Your task to perform on an android device: change the clock display to analog Image 0: 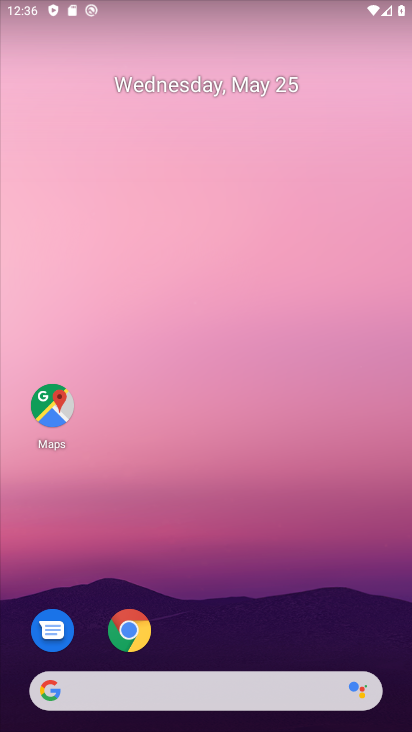
Step 0: drag from (353, 636) to (246, 209)
Your task to perform on an android device: change the clock display to analog Image 1: 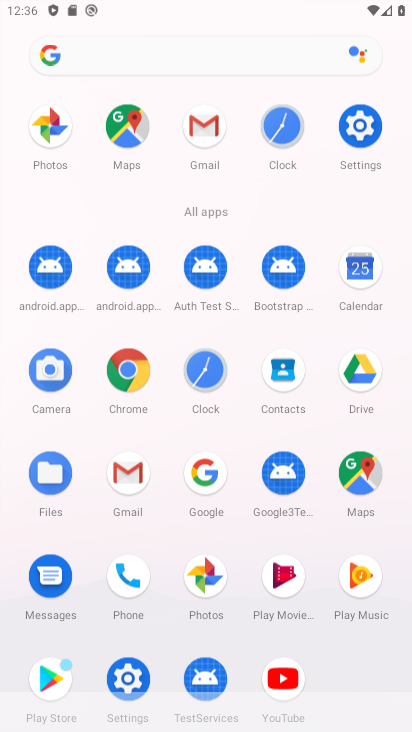
Step 1: drag from (324, 635) to (179, 82)
Your task to perform on an android device: change the clock display to analog Image 2: 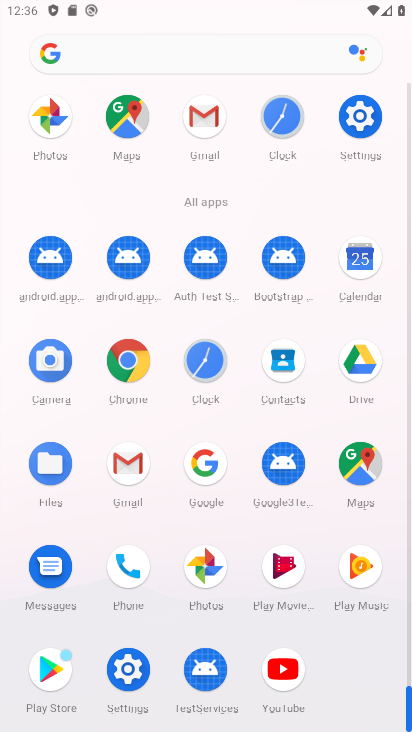
Step 2: click (281, 117)
Your task to perform on an android device: change the clock display to analog Image 3: 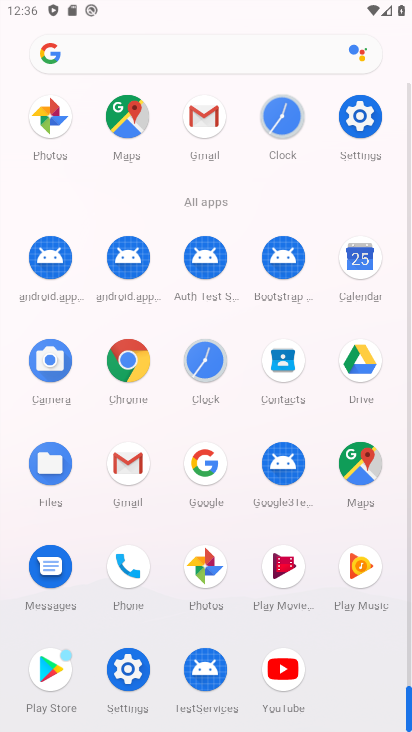
Step 3: click (280, 117)
Your task to perform on an android device: change the clock display to analog Image 4: 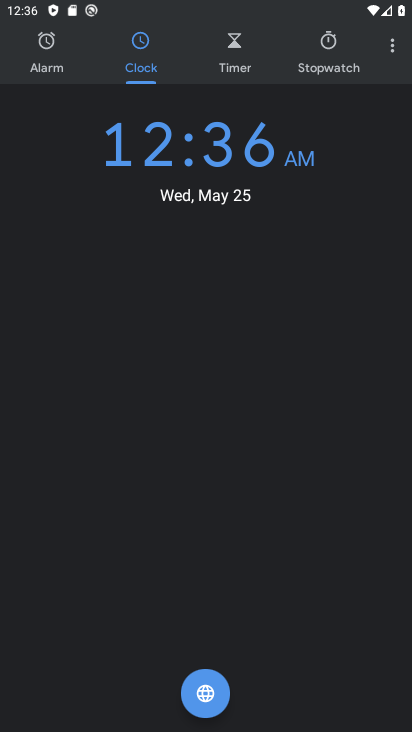
Step 4: click (396, 46)
Your task to perform on an android device: change the clock display to analog Image 5: 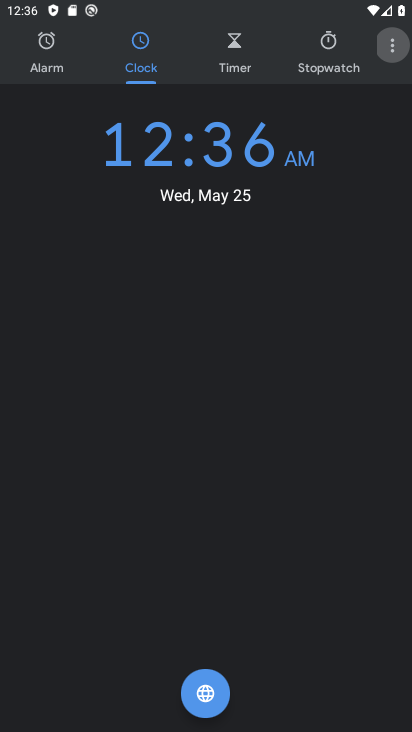
Step 5: click (394, 46)
Your task to perform on an android device: change the clock display to analog Image 6: 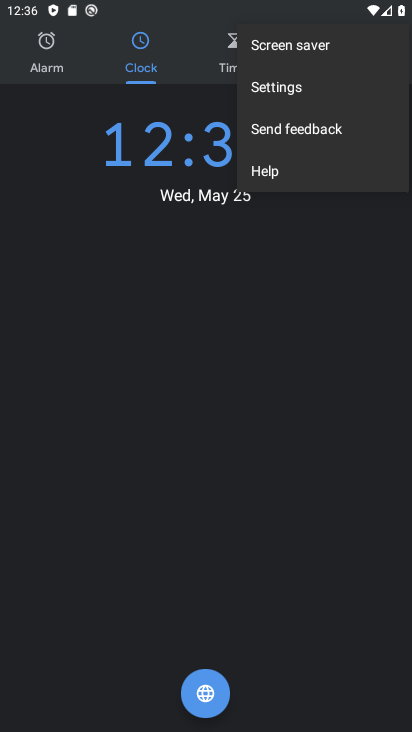
Step 6: click (310, 89)
Your task to perform on an android device: change the clock display to analog Image 7: 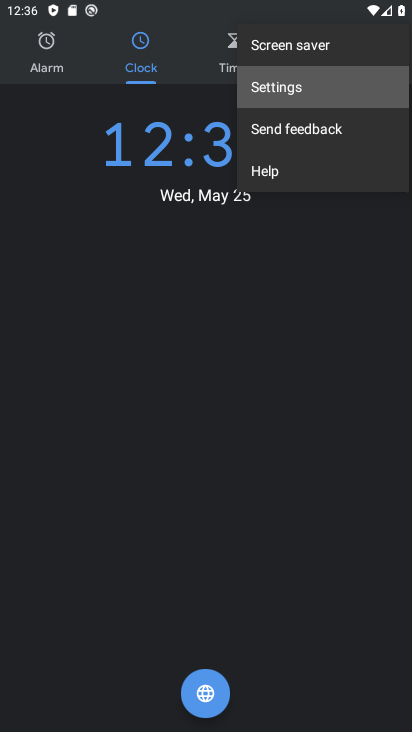
Step 7: click (308, 93)
Your task to perform on an android device: change the clock display to analog Image 8: 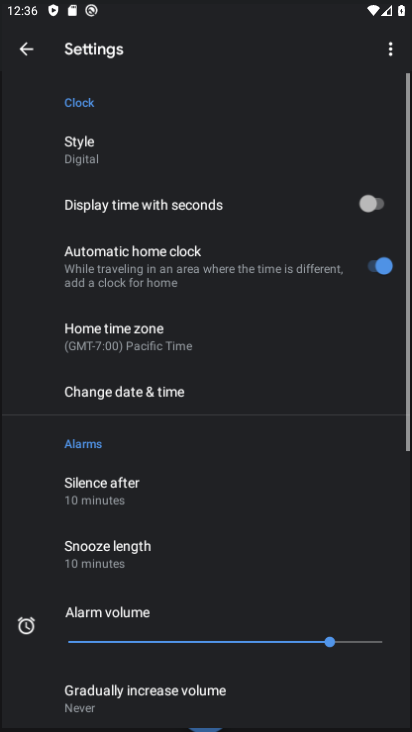
Step 8: click (301, 92)
Your task to perform on an android device: change the clock display to analog Image 9: 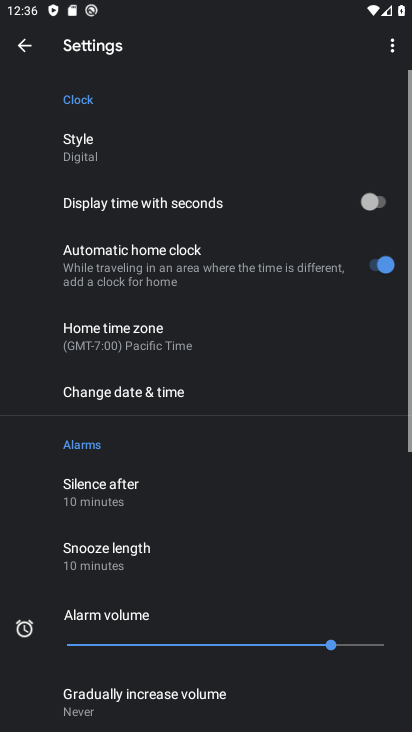
Step 9: click (302, 92)
Your task to perform on an android device: change the clock display to analog Image 10: 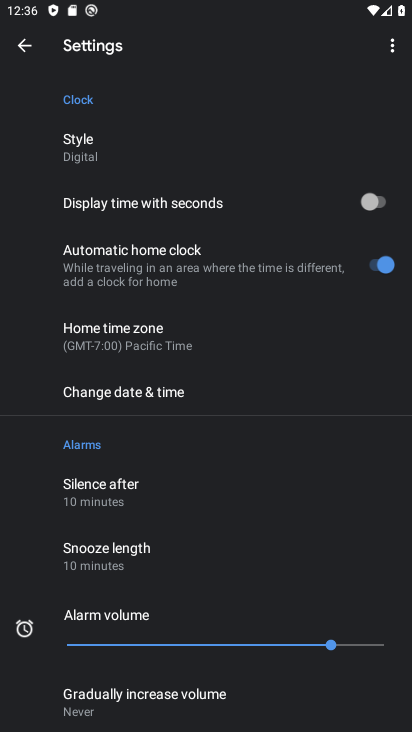
Step 10: click (135, 134)
Your task to perform on an android device: change the clock display to analog Image 11: 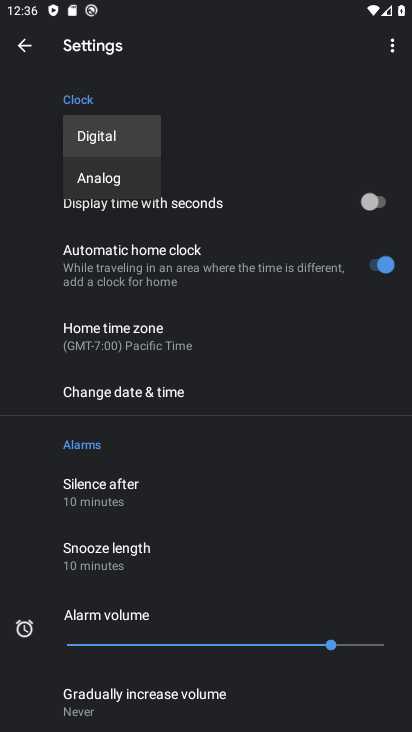
Step 11: click (132, 176)
Your task to perform on an android device: change the clock display to analog Image 12: 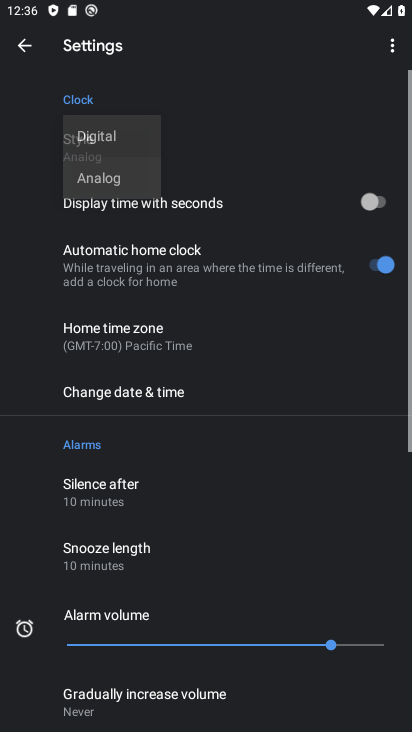
Step 12: click (136, 174)
Your task to perform on an android device: change the clock display to analog Image 13: 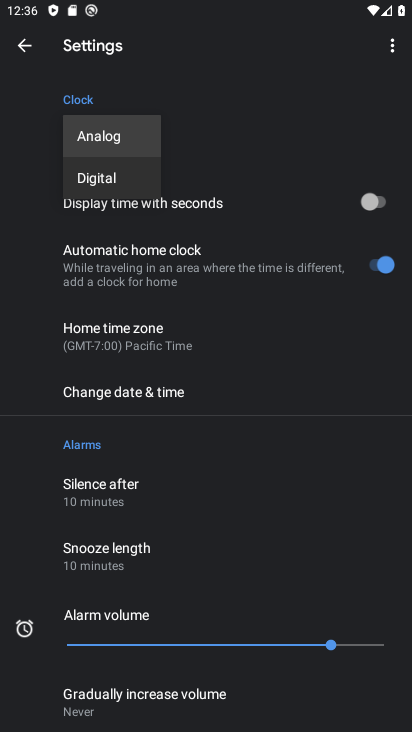
Step 13: click (120, 147)
Your task to perform on an android device: change the clock display to analog Image 14: 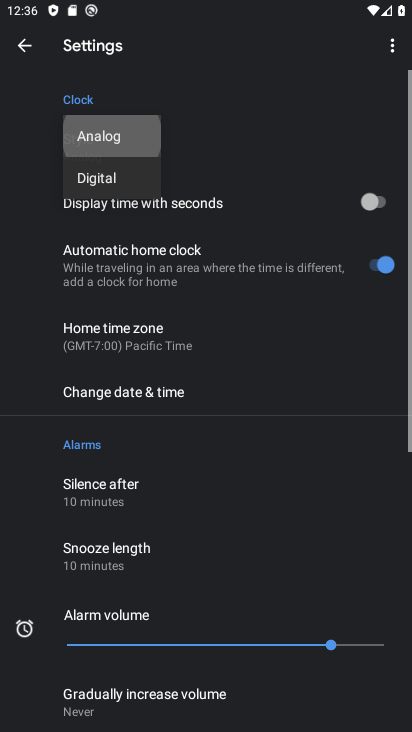
Step 14: click (121, 146)
Your task to perform on an android device: change the clock display to analog Image 15: 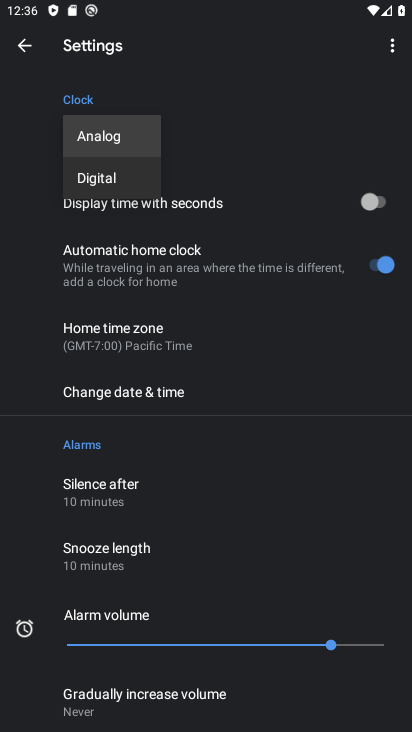
Step 15: task complete